Your task to perform on an android device: turn on javascript in the chrome app Image 0: 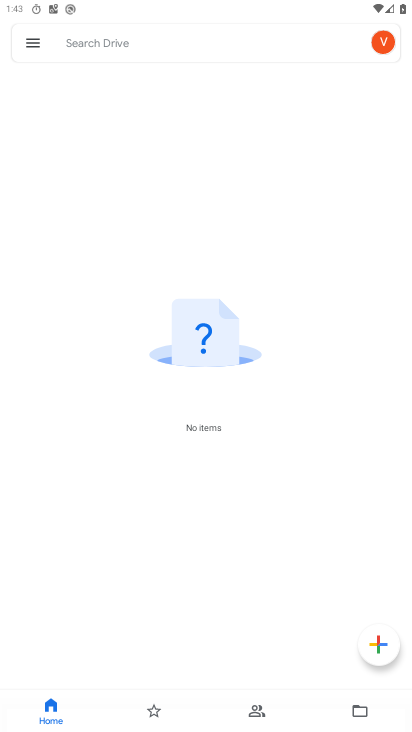
Step 0: press home button
Your task to perform on an android device: turn on javascript in the chrome app Image 1: 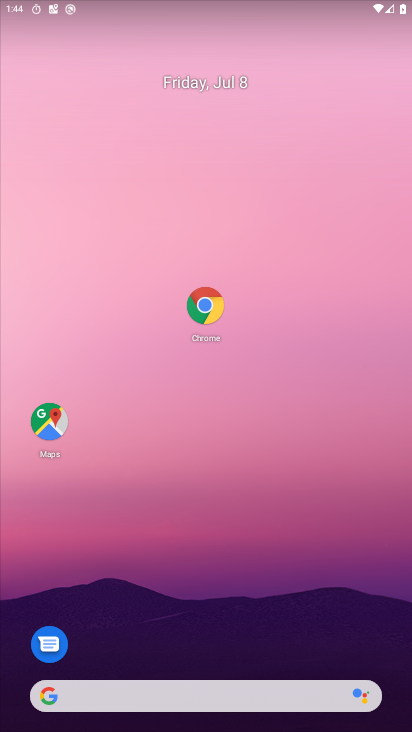
Step 1: click (204, 302)
Your task to perform on an android device: turn on javascript in the chrome app Image 2: 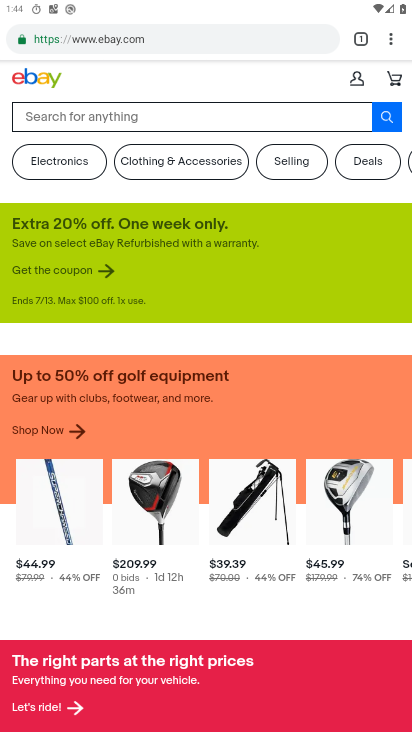
Step 2: click (390, 33)
Your task to perform on an android device: turn on javascript in the chrome app Image 3: 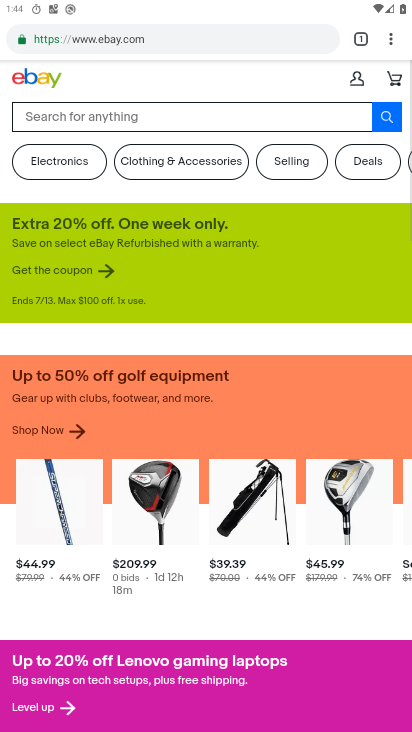
Step 3: click (393, 41)
Your task to perform on an android device: turn on javascript in the chrome app Image 4: 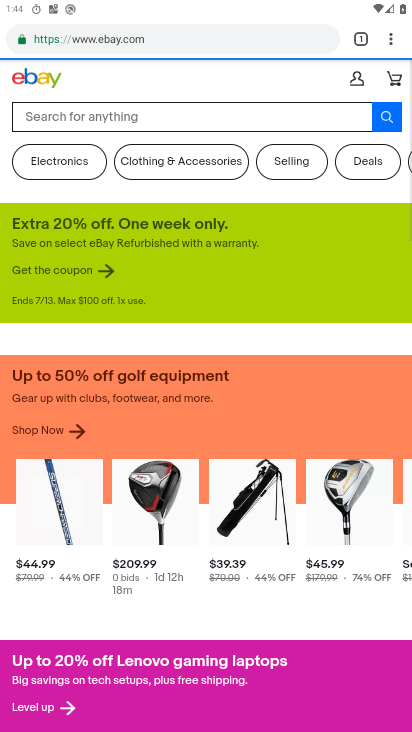
Step 4: click (391, 39)
Your task to perform on an android device: turn on javascript in the chrome app Image 5: 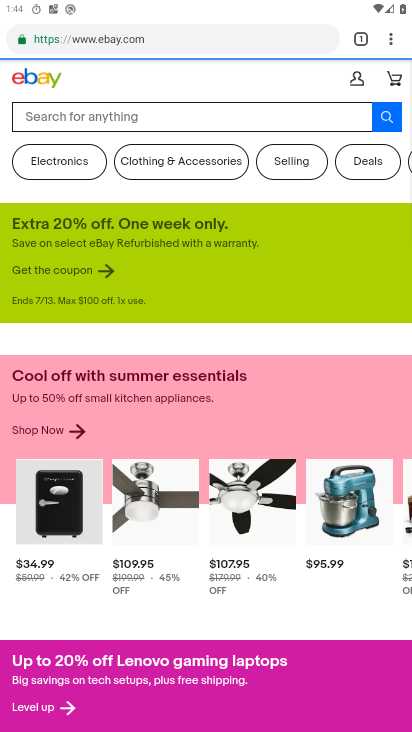
Step 5: click (391, 39)
Your task to perform on an android device: turn on javascript in the chrome app Image 6: 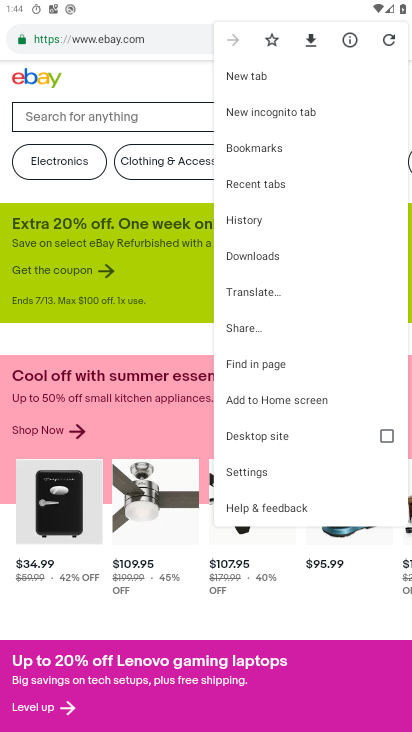
Step 6: click (271, 466)
Your task to perform on an android device: turn on javascript in the chrome app Image 7: 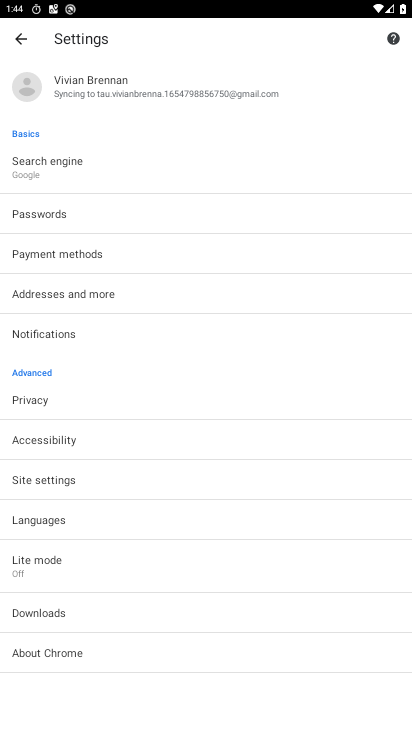
Step 7: drag from (99, 635) to (114, 343)
Your task to perform on an android device: turn on javascript in the chrome app Image 8: 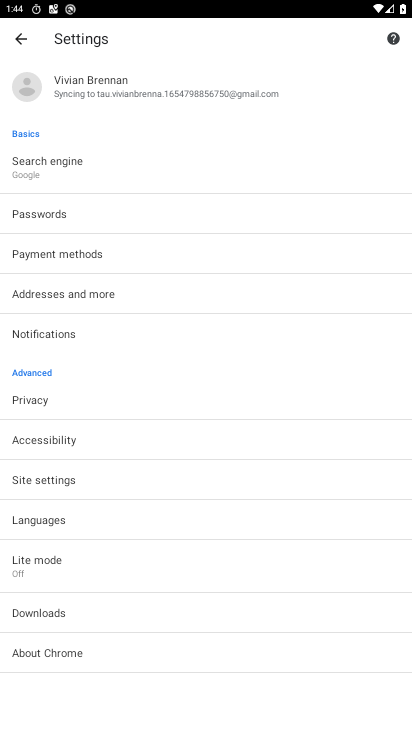
Step 8: click (43, 479)
Your task to perform on an android device: turn on javascript in the chrome app Image 9: 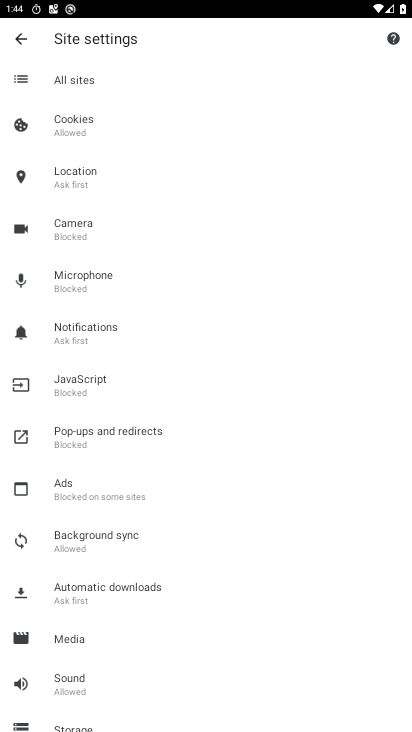
Step 9: click (79, 378)
Your task to perform on an android device: turn on javascript in the chrome app Image 10: 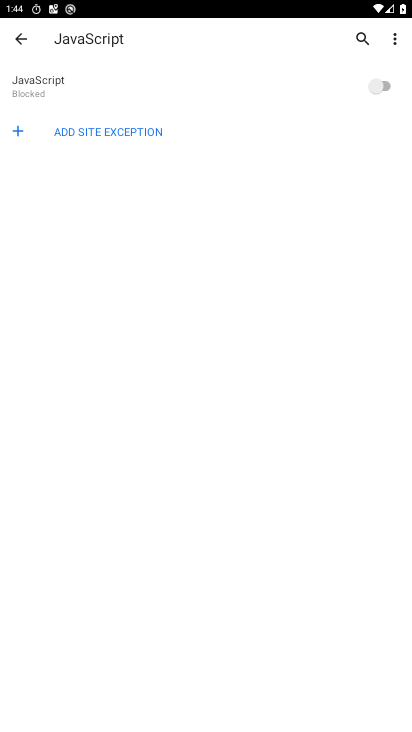
Step 10: click (378, 84)
Your task to perform on an android device: turn on javascript in the chrome app Image 11: 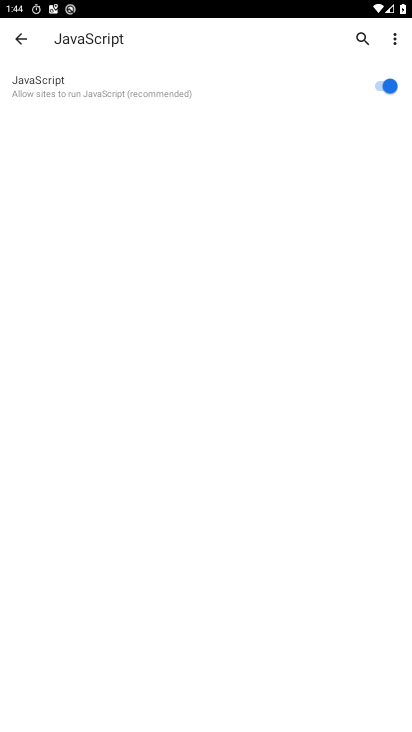
Step 11: task complete